Your task to perform on an android device: find snoozed emails in the gmail app Image 0: 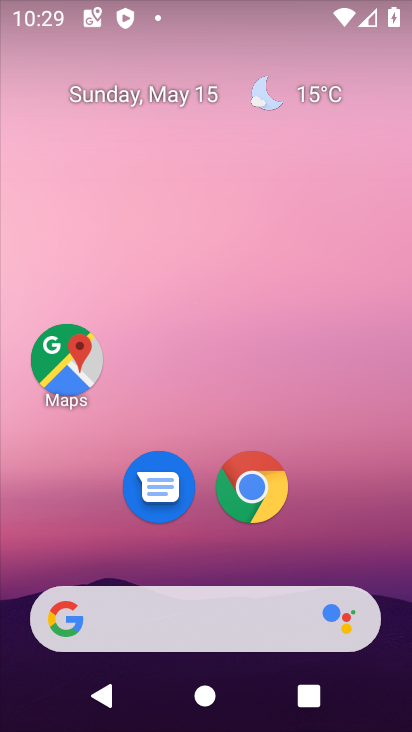
Step 0: drag from (388, 578) to (356, 131)
Your task to perform on an android device: find snoozed emails in the gmail app Image 1: 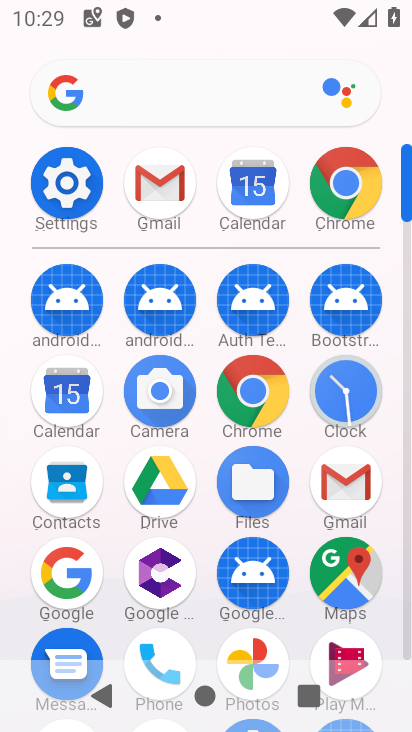
Step 1: click (408, 634)
Your task to perform on an android device: find snoozed emails in the gmail app Image 2: 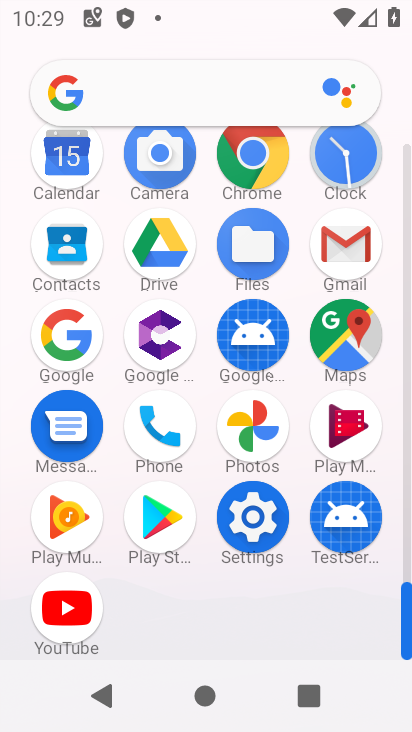
Step 2: click (345, 242)
Your task to perform on an android device: find snoozed emails in the gmail app Image 3: 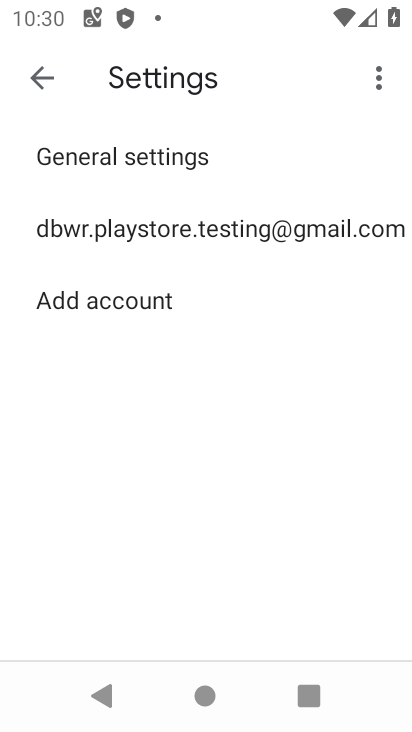
Step 3: press back button
Your task to perform on an android device: find snoozed emails in the gmail app Image 4: 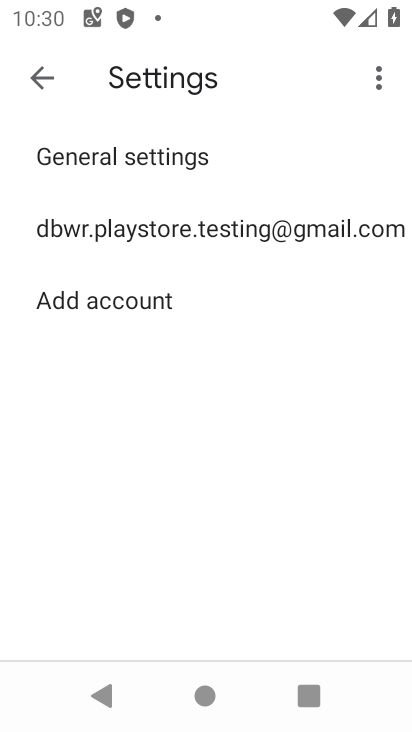
Step 4: press back button
Your task to perform on an android device: find snoozed emails in the gmail app Image 5: 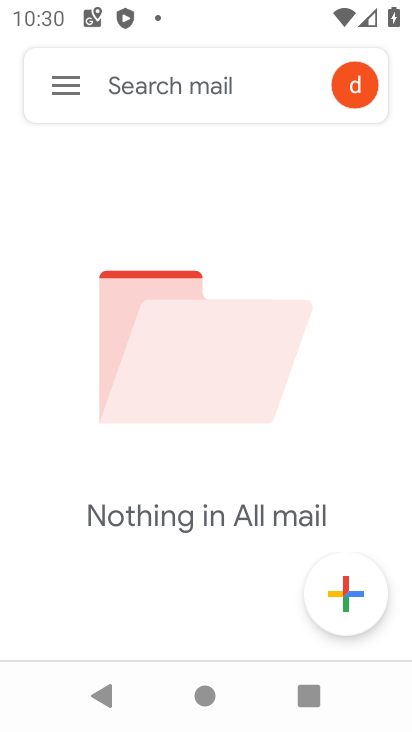
Step 5: click (62, 83)
Your task to perform on an android device: find snoozed emails in the gmail app Image 6: 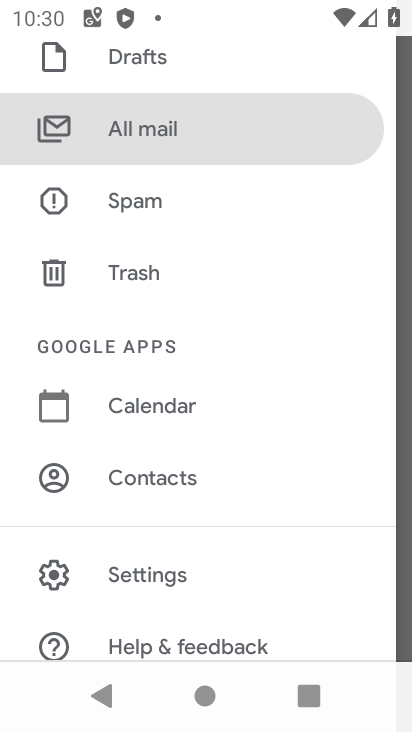
Step 6: drag from (244, 237) to (217, 539)
Your task to perform on an android device: find snoozed emails in the gmail app Image 7: 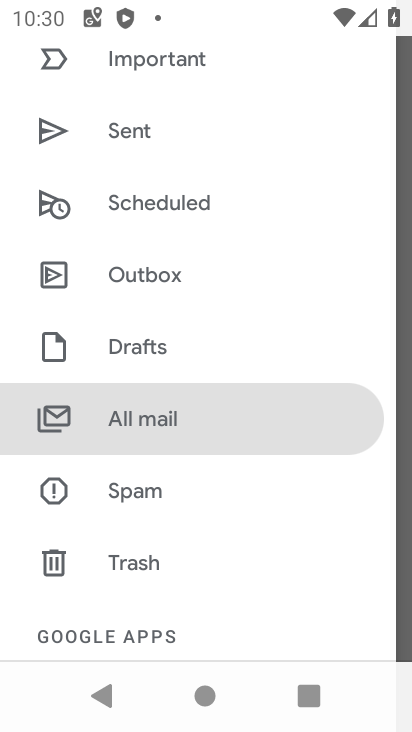
Step 7: drag from (315, 171) to (261, 441)
Your task to perform on an android device: find snoozed emails in the gmail app Image 8: 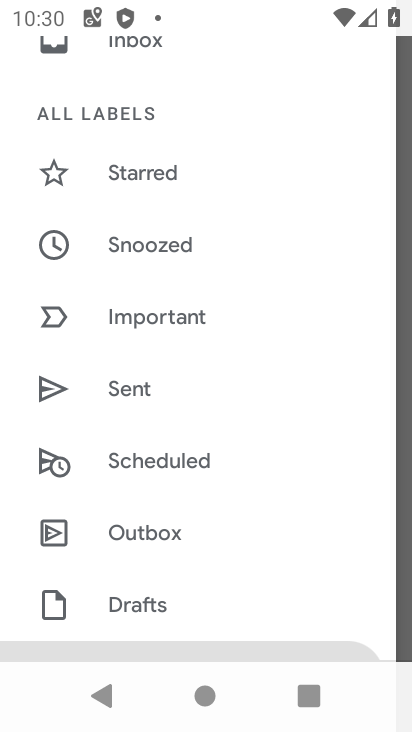
Step 8: click (133, 246)
Your task to perform on an android device: find snoozed emails in the gmail app Image 9: 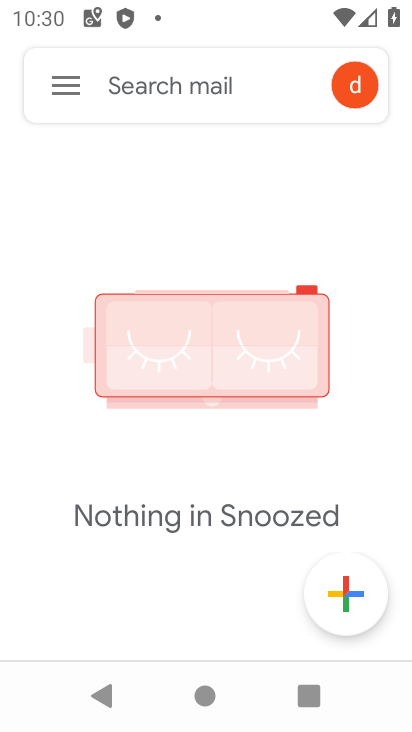
Step 9: task complete